Your task to perform on an android device: turn on data saver in the chrome app Image 0: 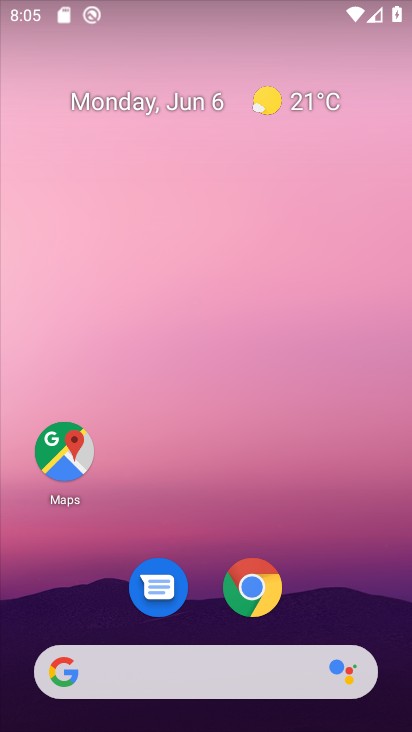
Step 0: press home button
Your task to perform on an android device: turn on data saver in the chrome app Image 1: 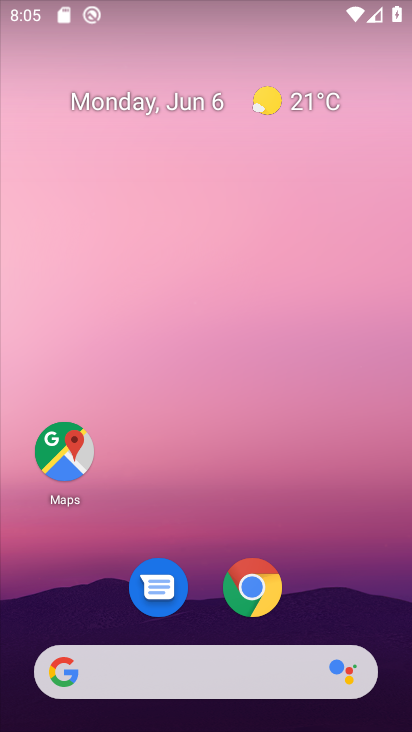
Step 1: drag from (311, 514) to (306, 149)
Your task to perform on an android device: turn on data saver in the chrome app Image 2: 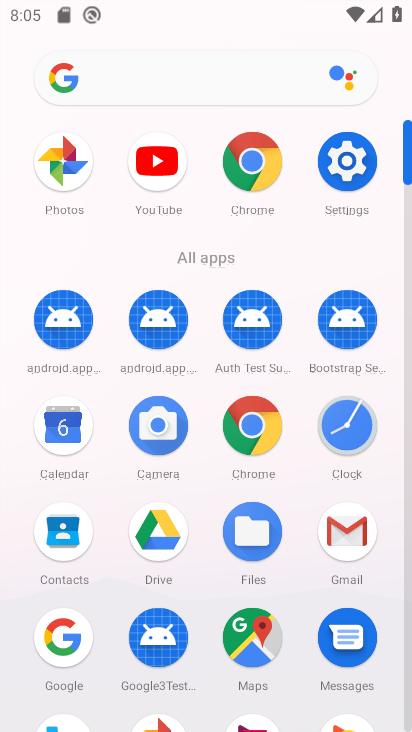
Step 2: click (241, 434)
Your task to perform on an android device: turn on data saver in the chrome app Image 3: 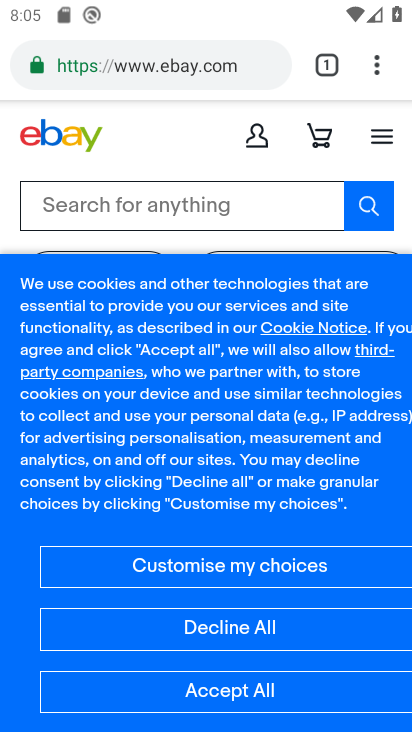
Step 3: click (196, 73)
Your task to perform on an android device: turn on data saver in the chrome app Image 4: 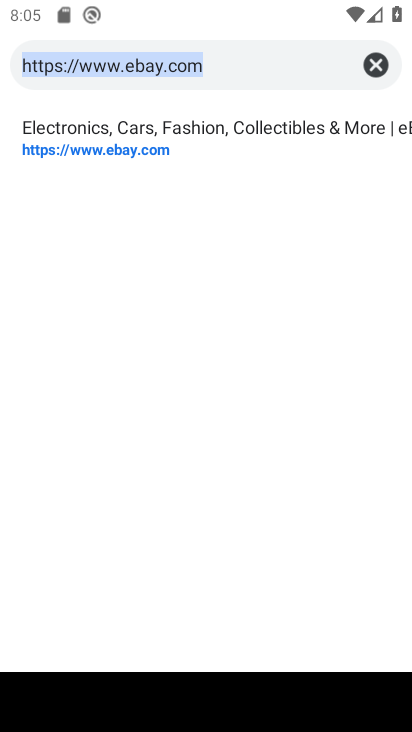
Step 4: click (372, 68)
Your task to perform on an android device: turn on data saver in the chrome app Image 5: 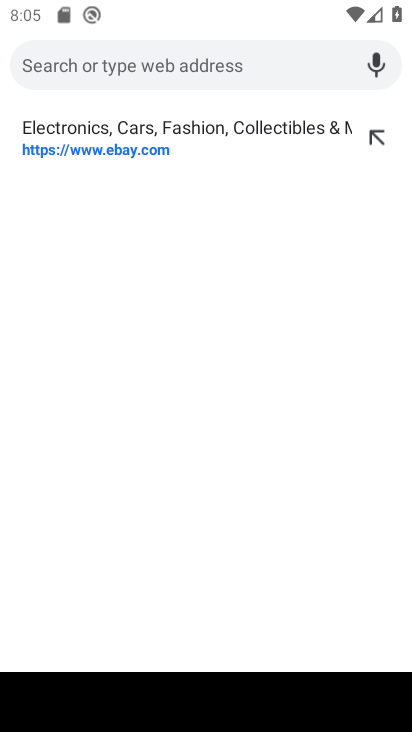
Step 5: press back button
Your task to perform on an android device: turn on data saver in the chrome app Image 6: 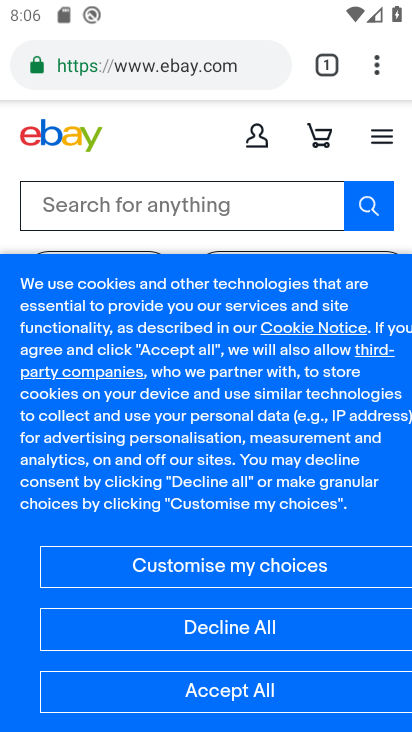
Step 6: click (374, 66)
Your task to perform on an android device: turn on data saver in the chrome app Image 7: 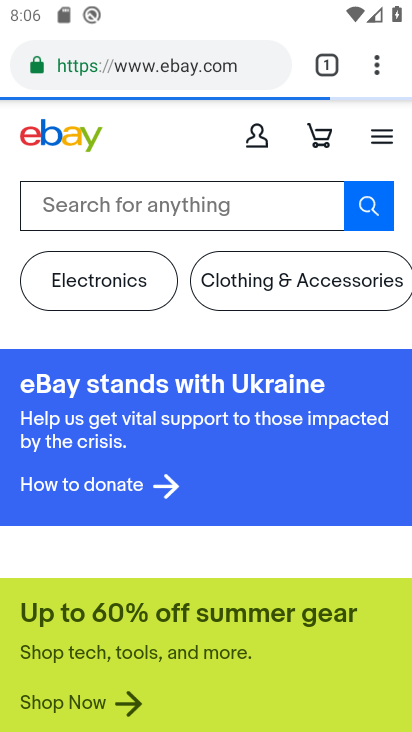
Step 7: drag from (379, 66) to (223, 634)
Your task to perform on an android device: turn on data saver in the chrome app Image 8: 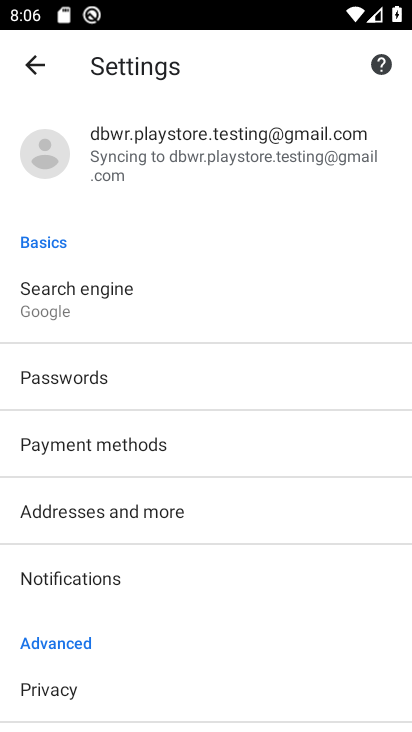
Step 8: drag from (233, 662) to (281, 338)
Your task to perform on an android device: turn on data saver in the chrome app Image 9: 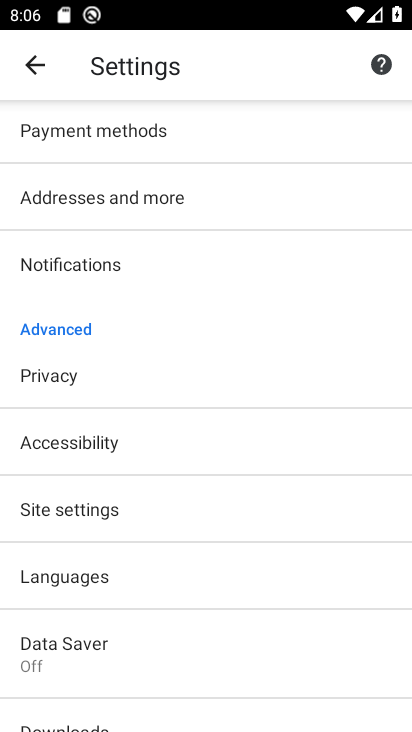
Step 9: click (192, 670)
Your task to perform on an android device: turn on data saver in the chrome app Image 10: 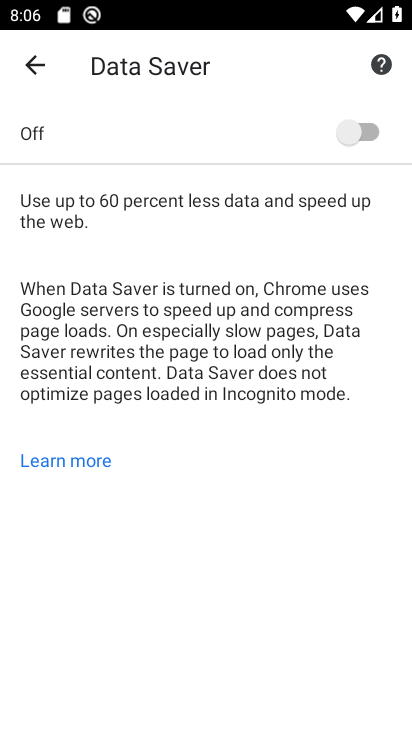
Step 10: click (378, 135)
Your task to perform on an android device: turn on data saver in the chrome app Image 11: 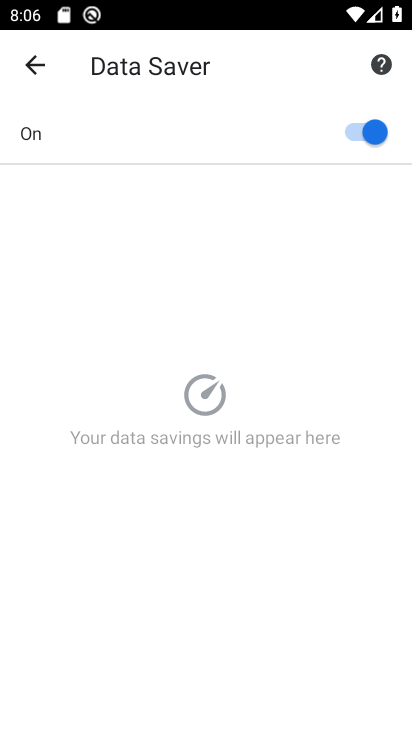
Step 11: task complete